Your task to perform on an android device: Open Chrome and go to the settings page Image 0: 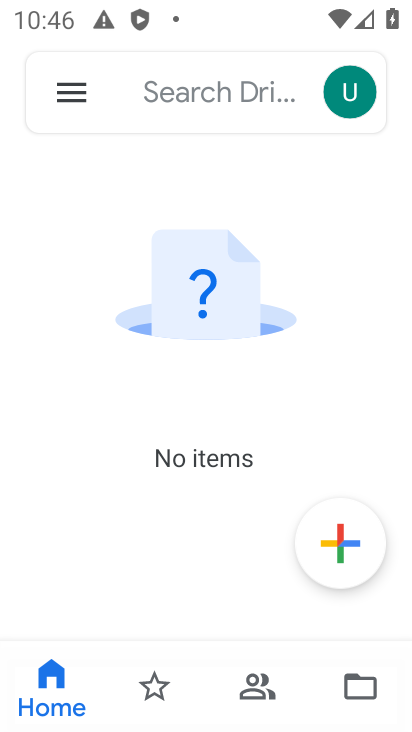
Step 0: press home button
Your task to perform on an android device: Open Chrome and go to the settings page Image 1: 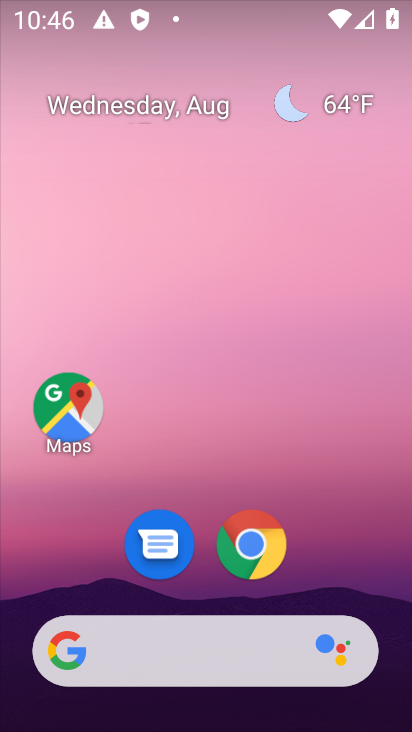
Step 1: task complete